Your task to perform on an android device: Search for Mexican restaurants on Maps Image 0: 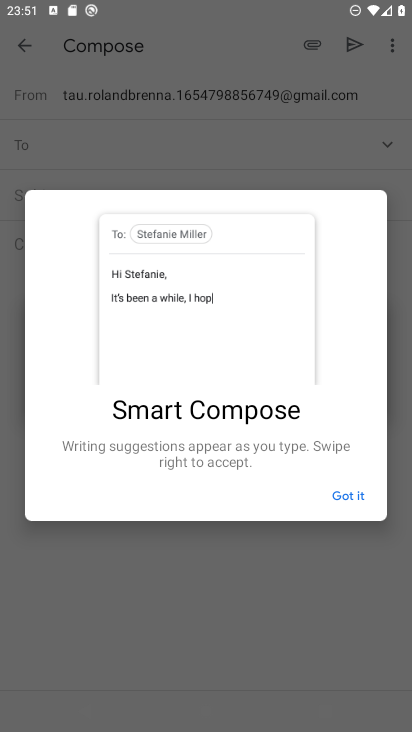
Step 0: press home button
Your task to perform on an android device: Search for Mexican restaurants on Maps Image 1: 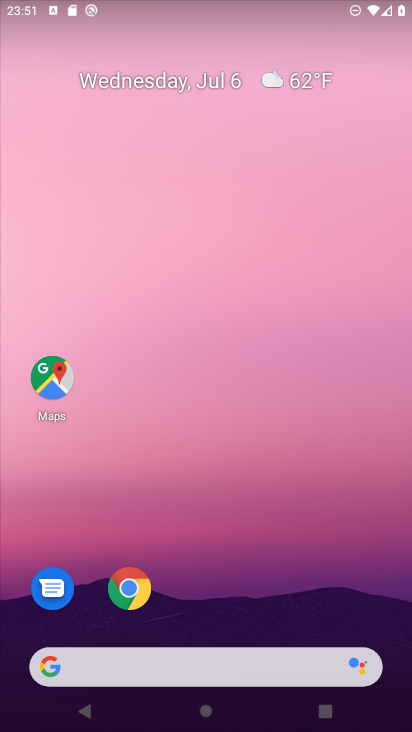
Step 1: click (51, 380)
Your task to perform on an android device: Search for Mexican restaurants on Maps Image 2: 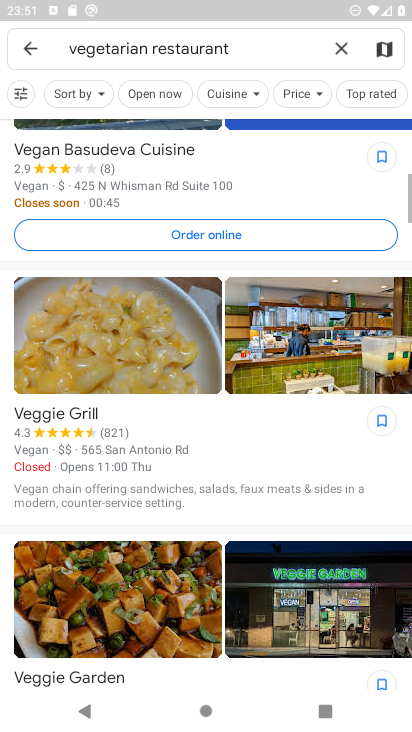
Step 2: click (334, 46)
Your task to perform on an android device: Search for Mexican restaurants on Maps Image 3: 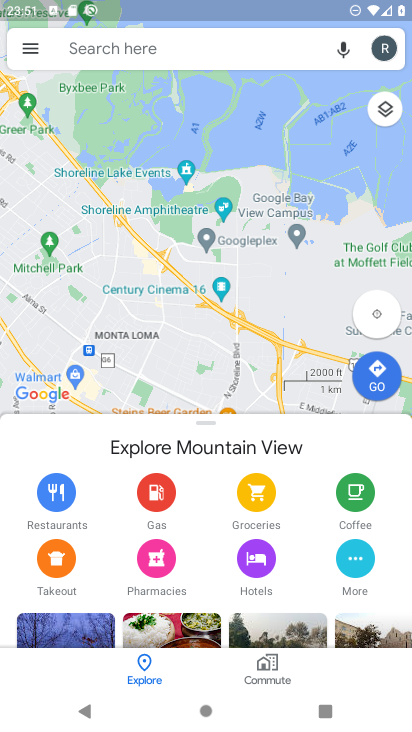
Step 3: click (113, 46)
Your task to perform on an android device: Search for Mexican restaurants on Maps Image 4: 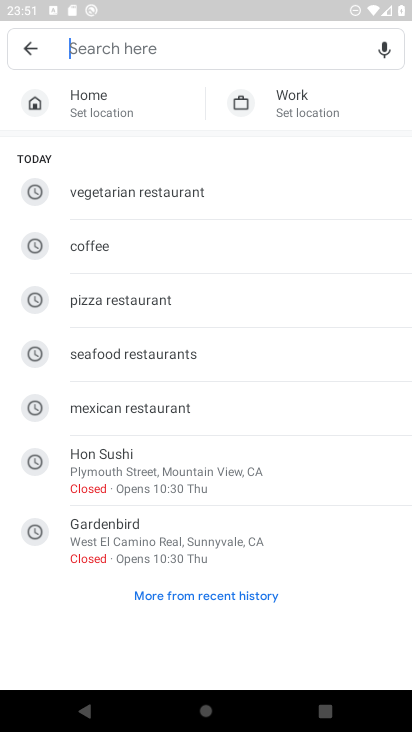
Step 4: type "Mexican restaurants"
Your task to perform on an android device: Search for Mexican restaurants on Maps Image 5: 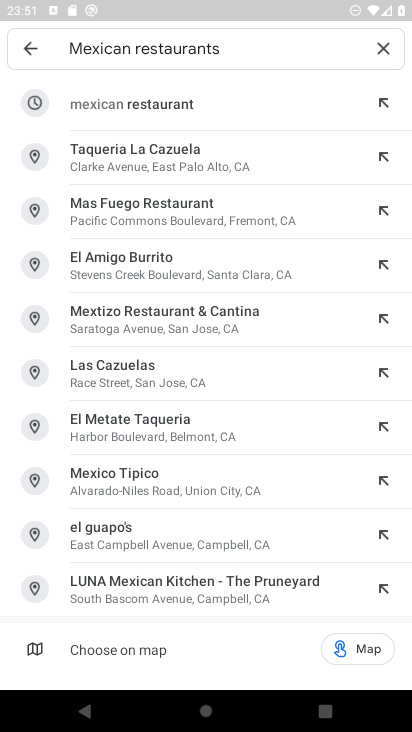
Step 5: click (138, 105)
Your task to perform on an android device: Search for Mexican restaurants on Maps Image 6: 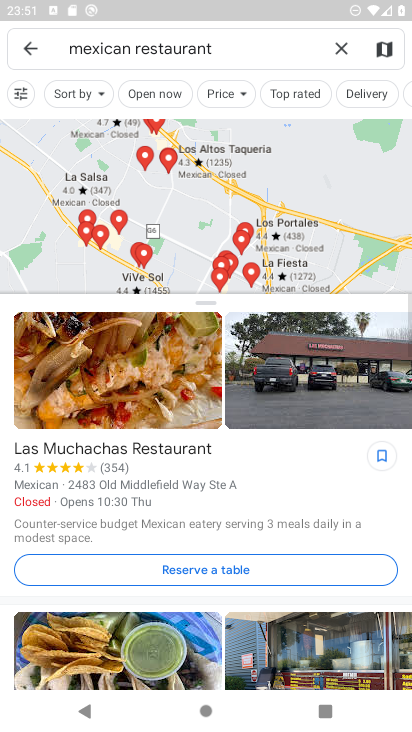
Step 6: task complete